Your task to perform on an android device: Open Chrome and go to settings Image 0: 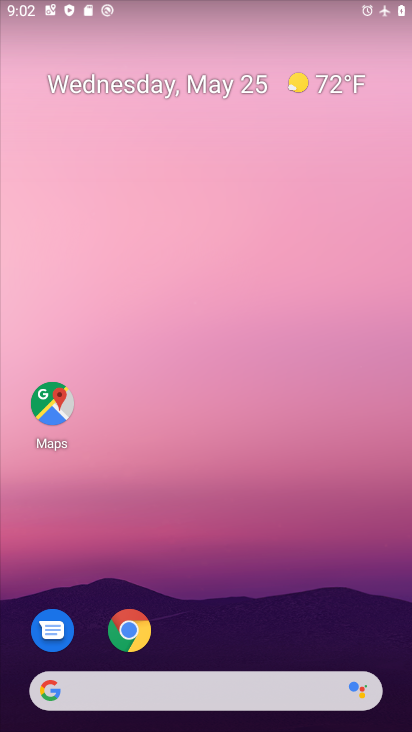
Step 0: click (116, 632)
Your task to perform on an android device: Open Chrome and go to settings Image 1: 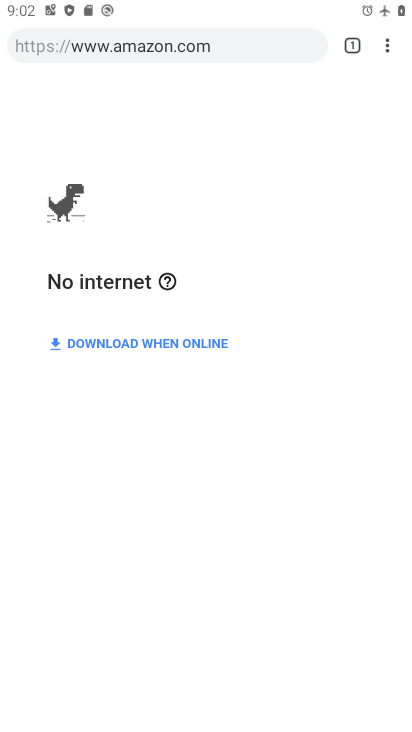
Step 1: click (386, 41)
Your task to perform on an android device: Open Chrome and go to settings Image 2: 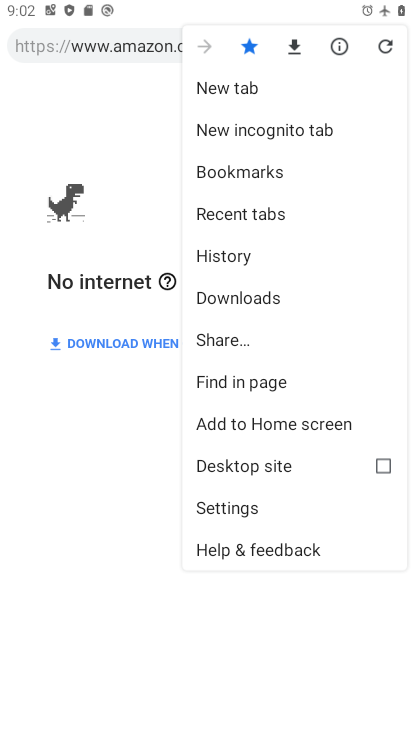
Step 2: drag from (278, 540) to (286, 334)
Your task to perform on an android device: Open Chrome and go to settings Image 3: 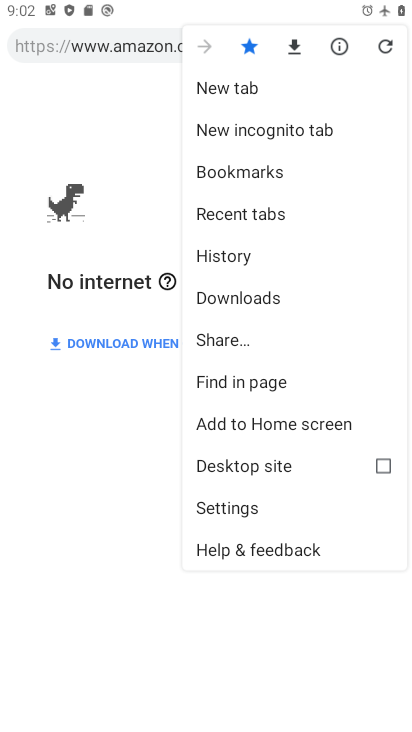
Step 3: click (234, 503)
Your task to perform on an android device: Open Chrome and go to settings Image 4: 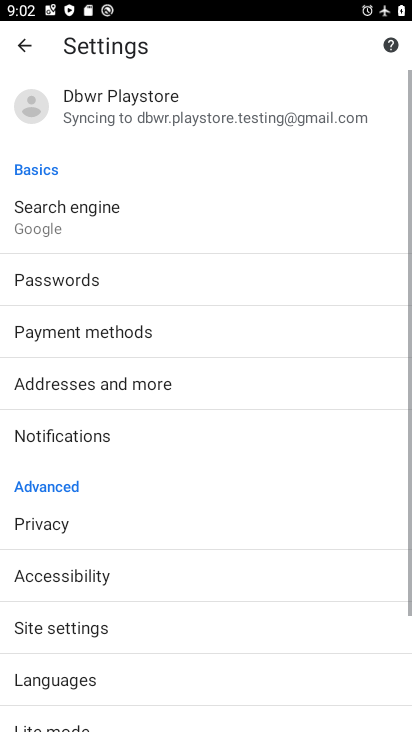
Step 4: task complete